Your task to perform on an android device: Open Google Maps and go to "Timeline" Image 0: 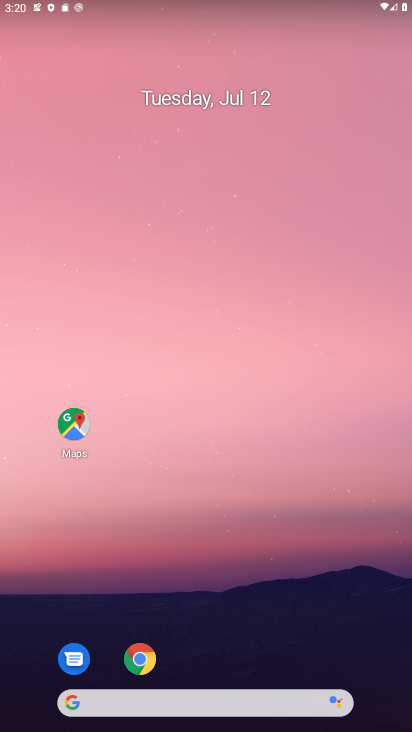
Step 0: drag from (218, 660) to (216, 173)
Your task to perform on an android device: Open Google Maps and go to "Timeline" Image 1: 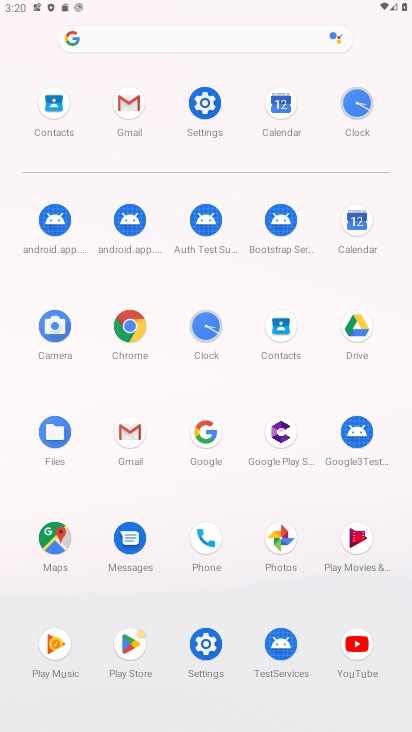
Step 1: click (57, 534)
Your task to perform on an android device: Open Google Maps and go to "Timeline" Image 2: 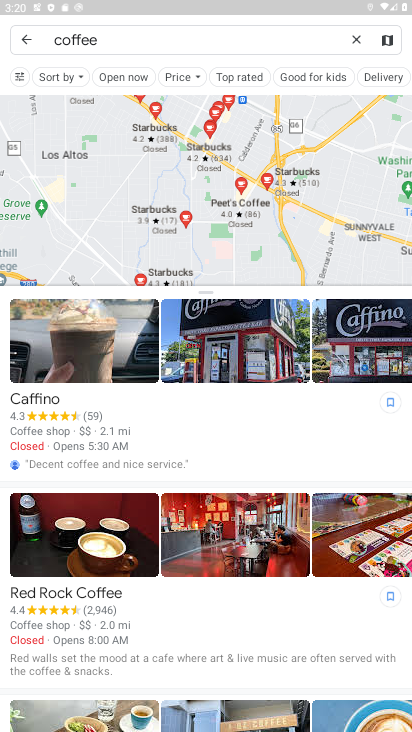
Step 2: click (29, 35)
Your task to perform on an android device: Open Google Maps and go to "Timeline" Image 3: 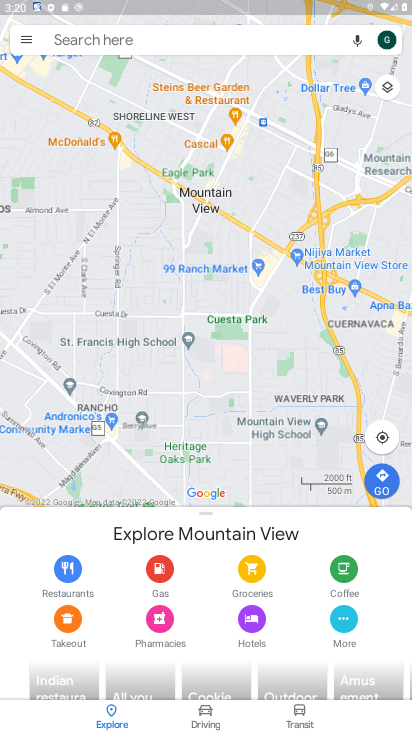
Step 3: click (26, 38)
Your task to perform on an android device: Open Google Maps and go to "Timeline" Image 4: 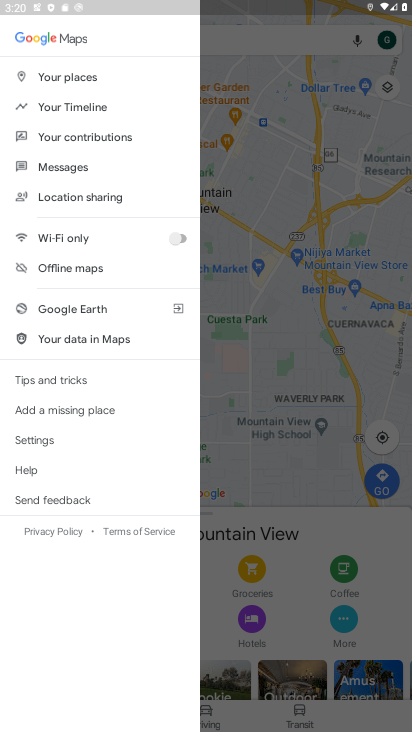
Step 4: click (62, 101)
Your task to perform on an android device: Open Google Maps and go to "Timeline" Image 5: 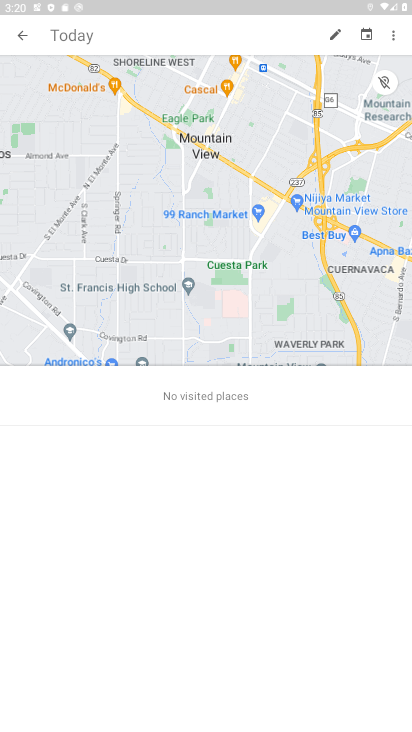
Step 5: task complete